Your task to perform on an android device: What's the news in Myanmar? Image 0: 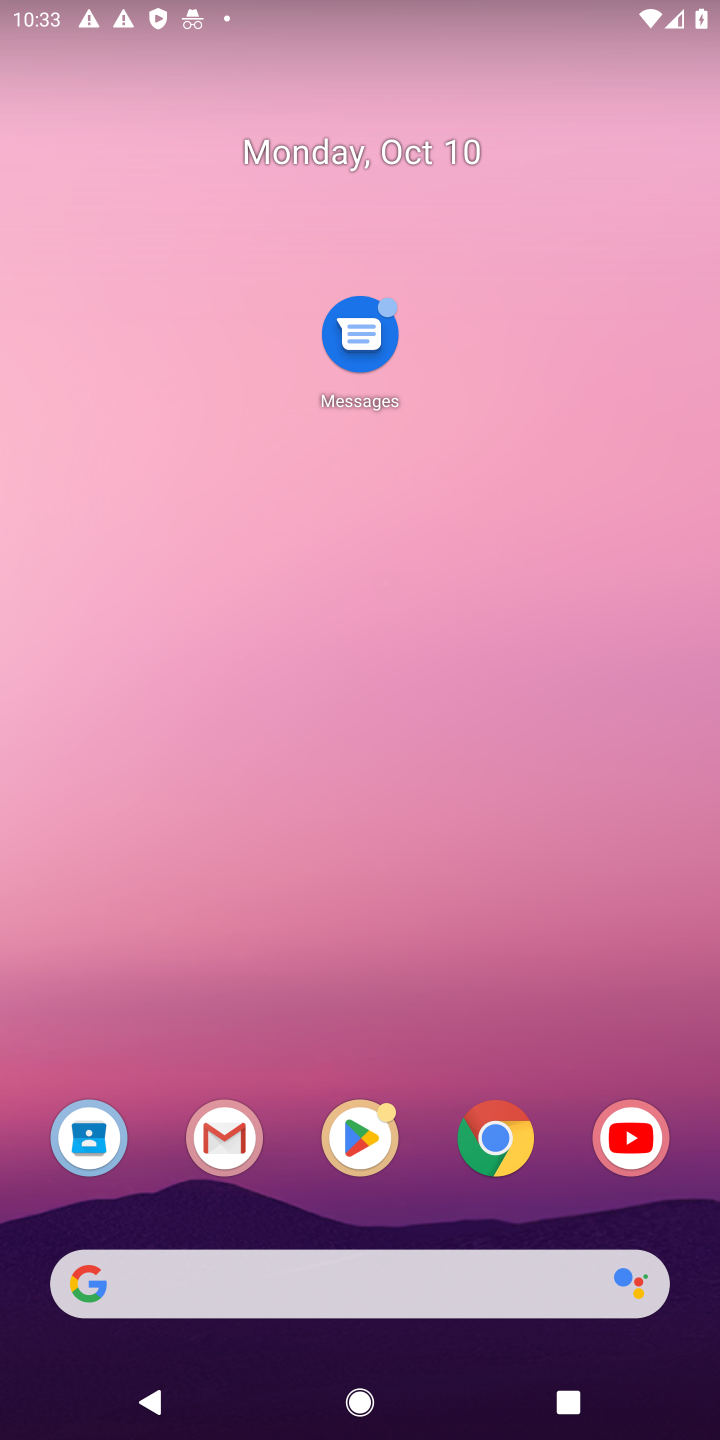
Step 0: click (492, 1159)
Your task to perform on an android device: What's the news in Myanmar? Image 1: 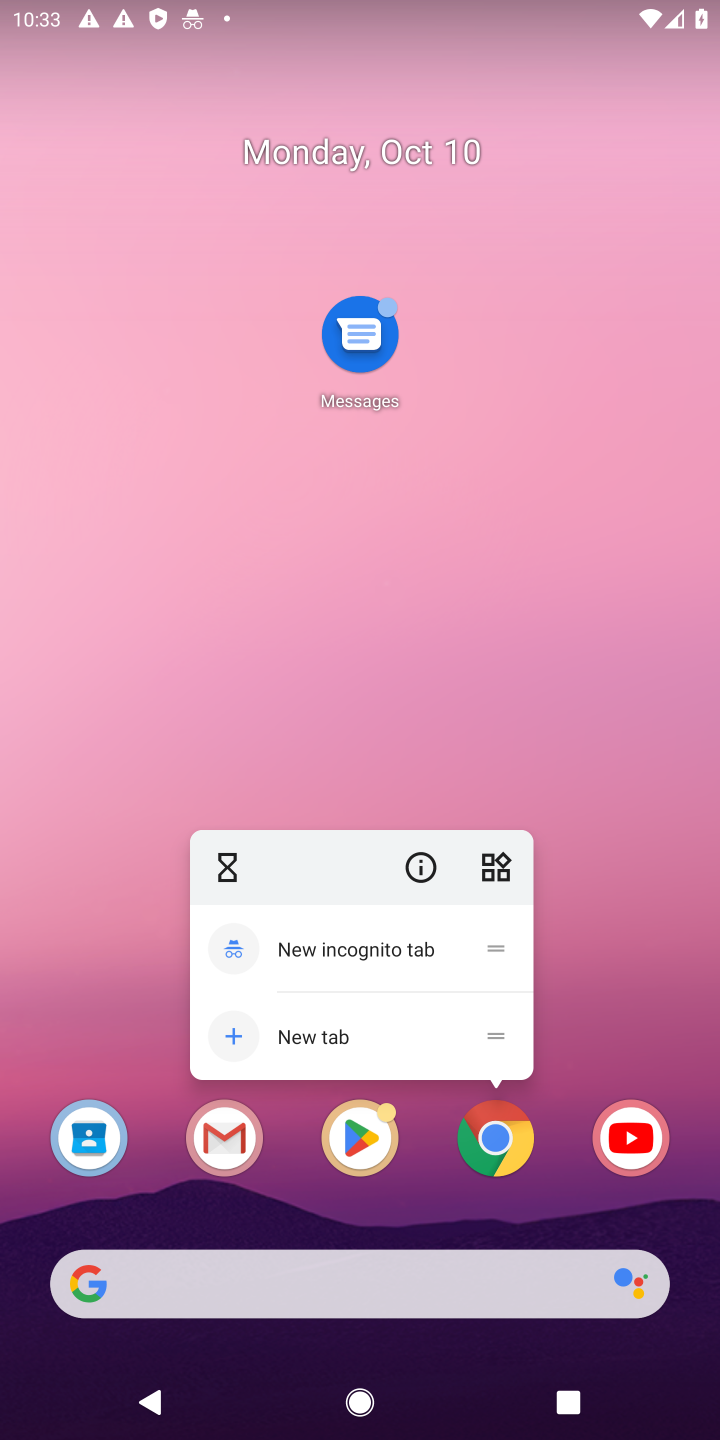
Step 1: click (502, 1142)
Your task to perform on an android device: What's the news in Myanmar? Image 2: 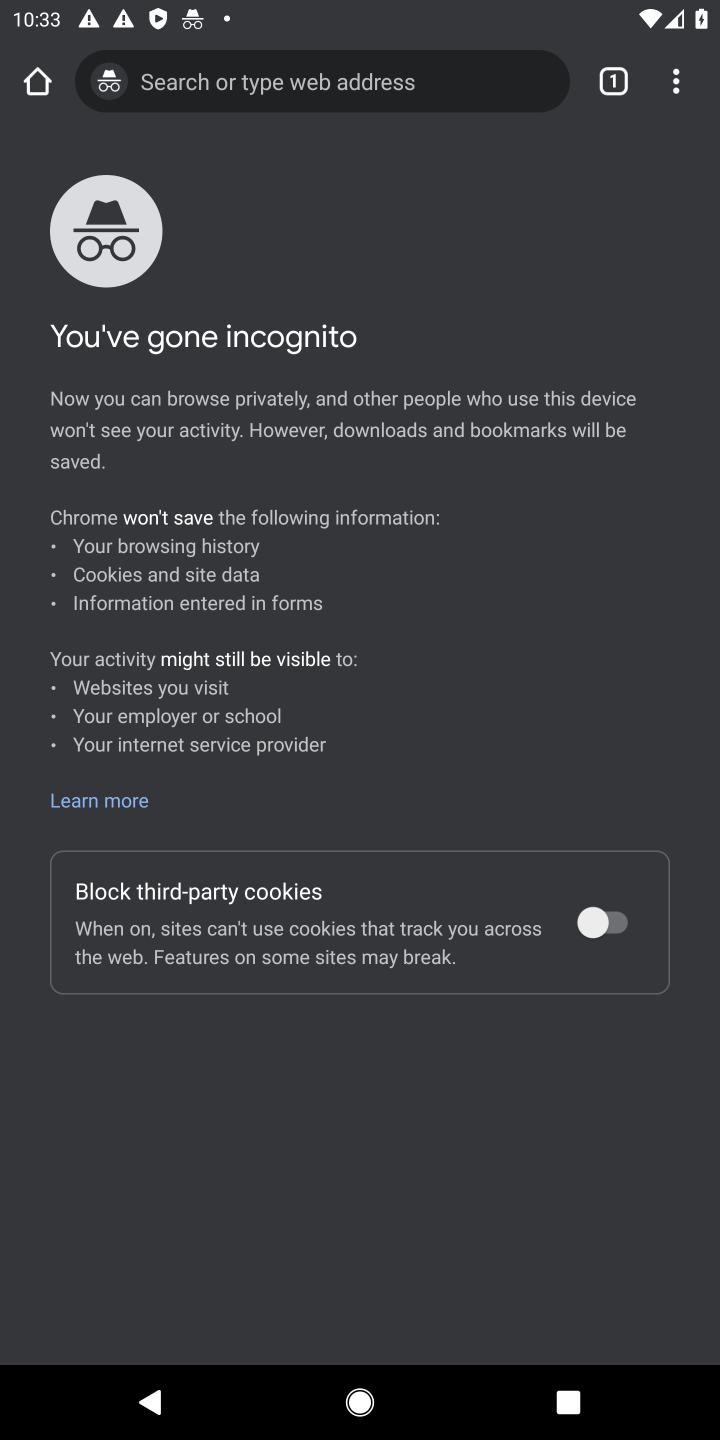
Step 2: click (626, 78)
Your task to perform on an android device: What's the news in Myanmar? Image 3: 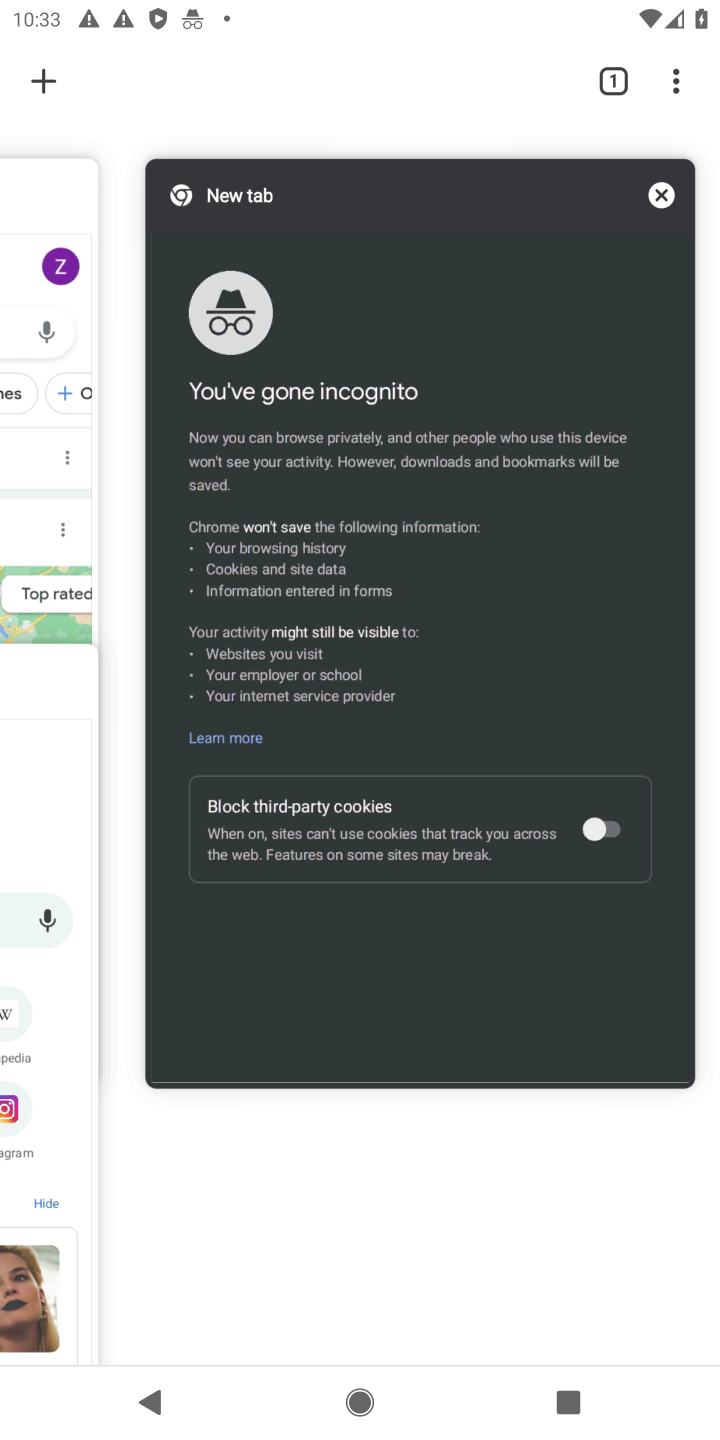
Step 3: click (655, 204)
Your task to perform on an android device: What's the news in Myanmar? Image 4: 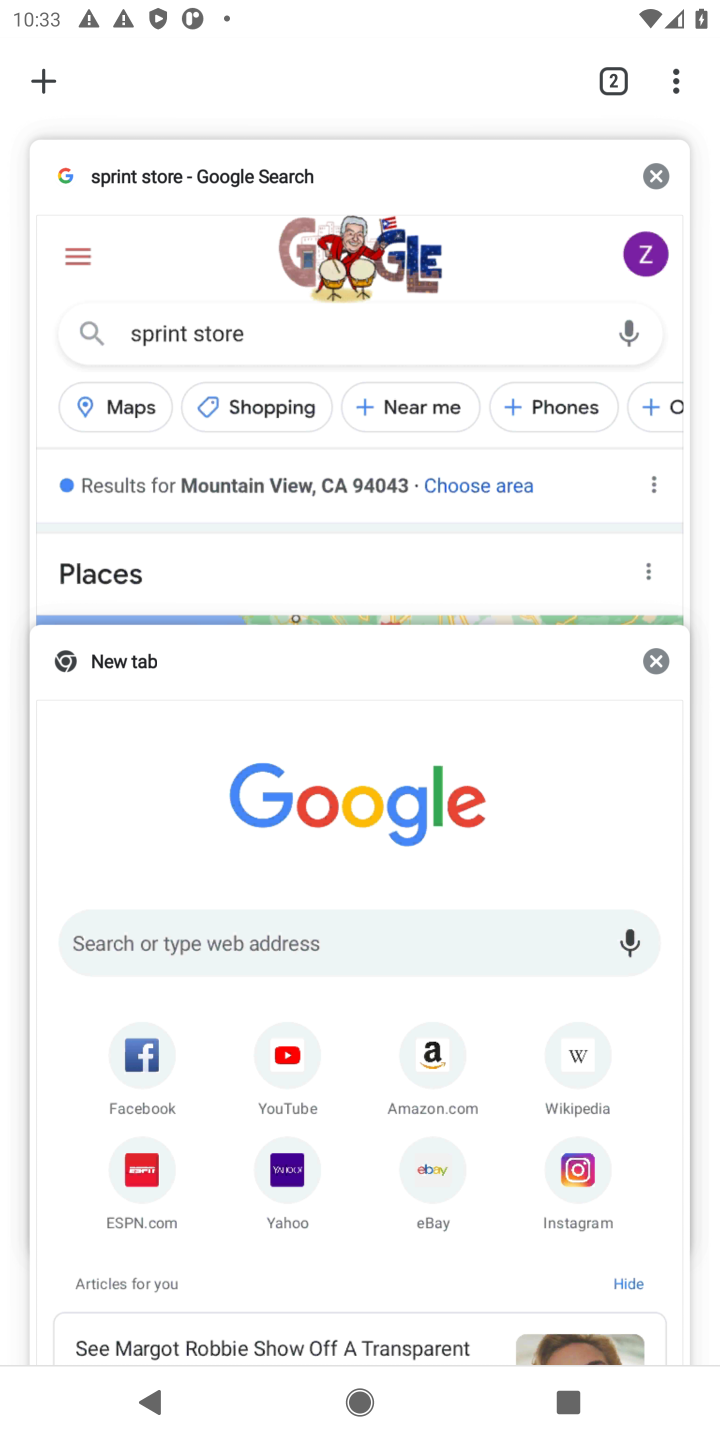
Step 4: click (656, 659)
Your task to perform on an android device: What's the news in Myanmar? Image 5: 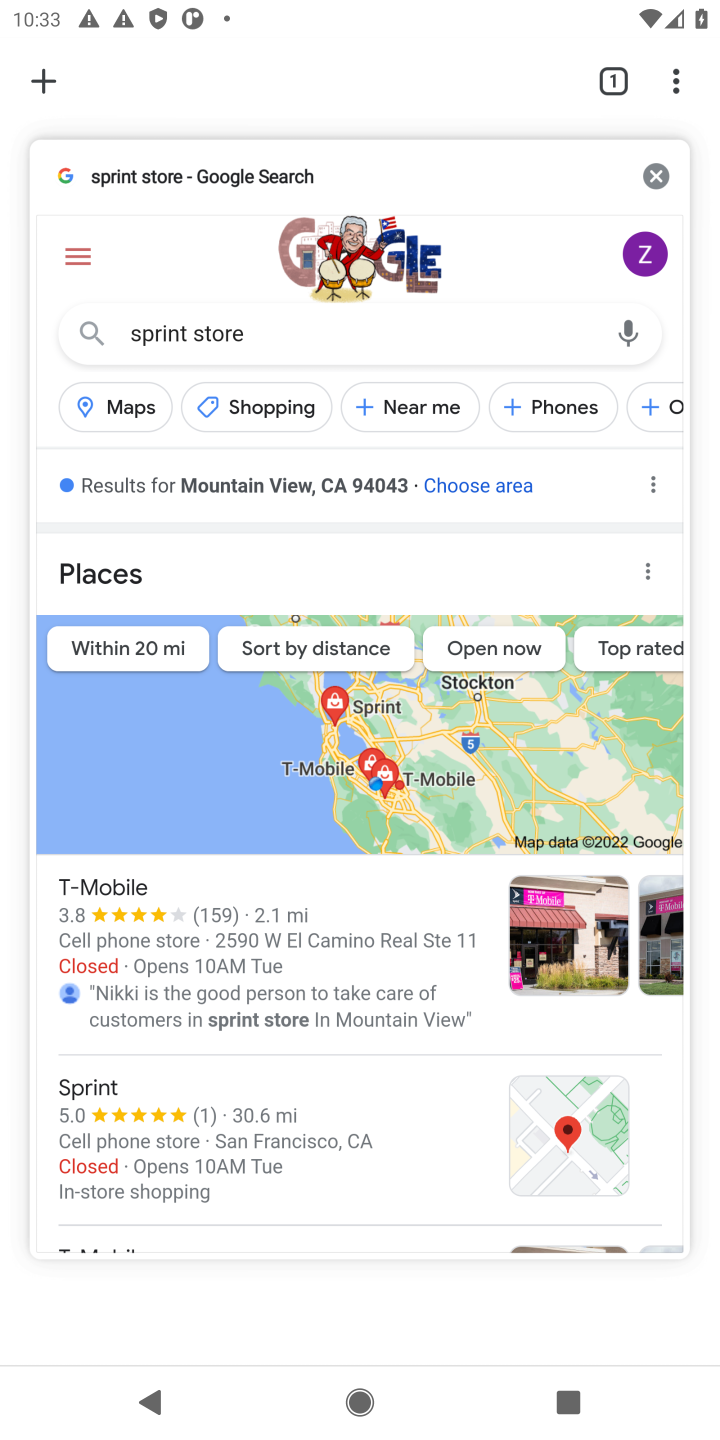
Step 5: click (654, 173)
Your task to perform on an android device: What's the news in Myanmar? Image 6: 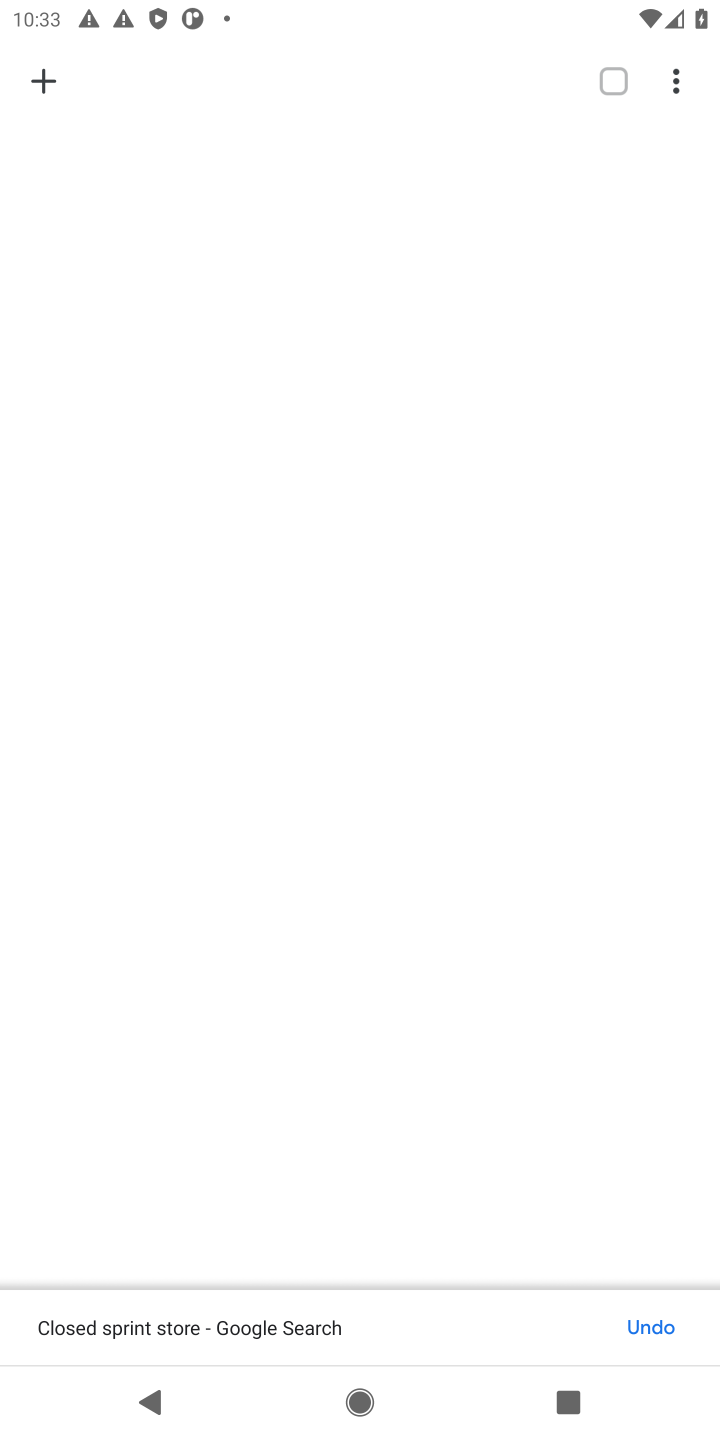
Step 6: click (24, 90)
Your task to perform on an android device: What's the news in Myanmar? Image 7: 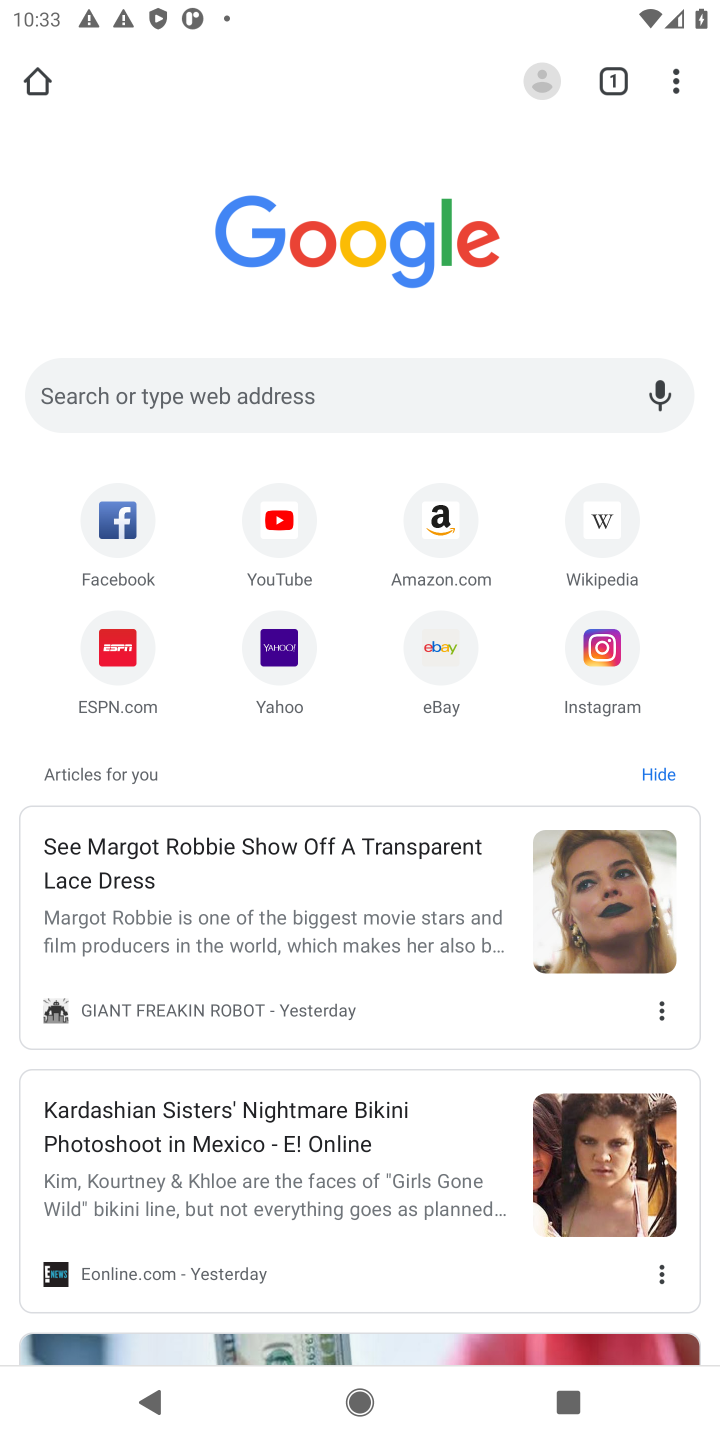
Step 7: click (200, 409)
Your task to perform on an android device: What's the news in Myanmar? Image 8: 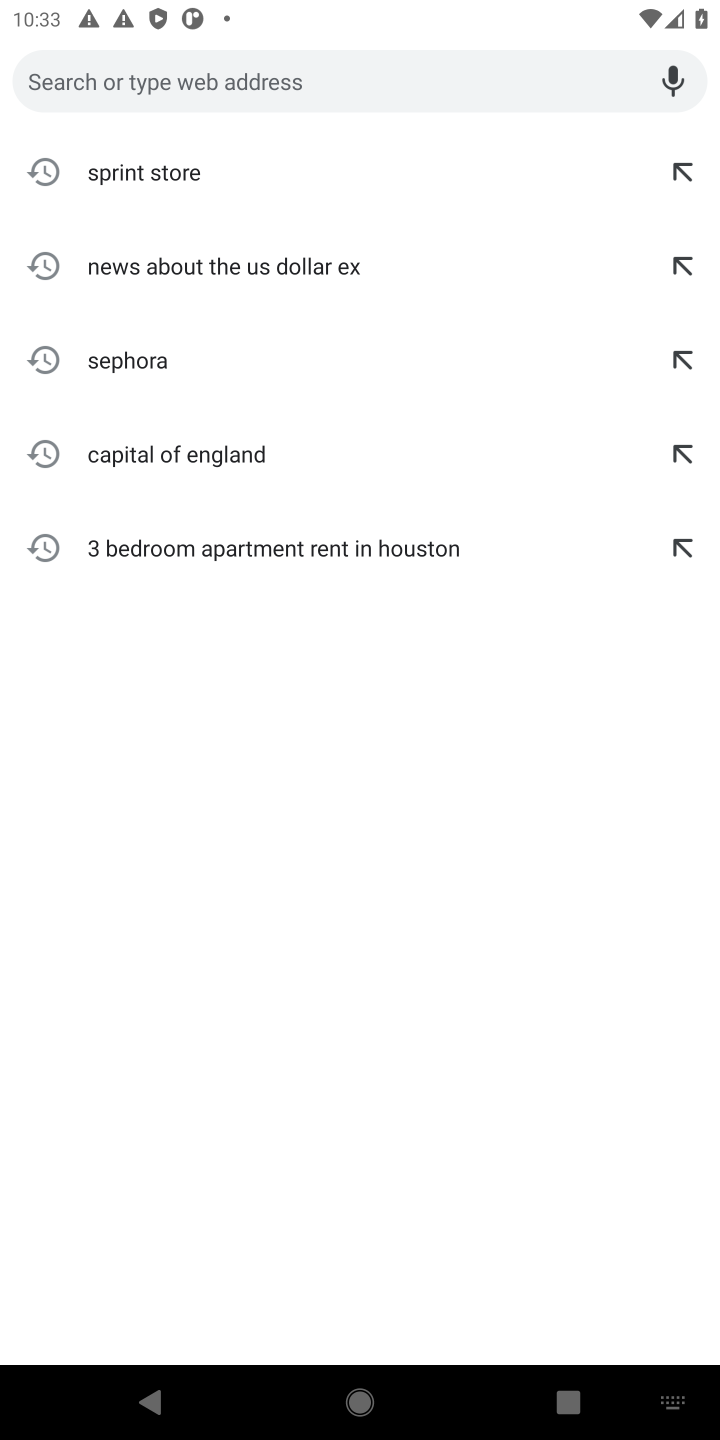
Step 8: type "news in Myanmar"
Your task to perform on an android device: What's the news in Myanmar? Image 9: 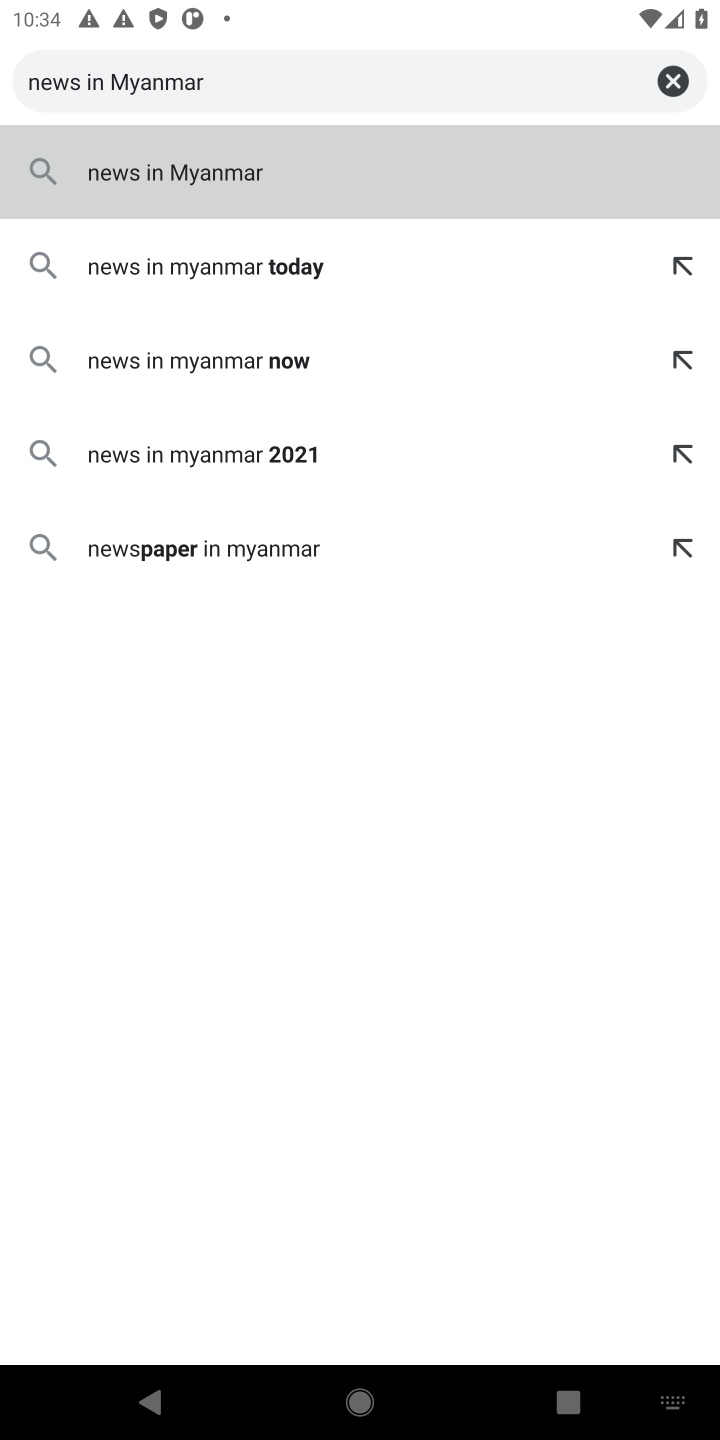
Step 9: press enter
Your task to perform on an android device: What's the news in Myanmar? Image 10: 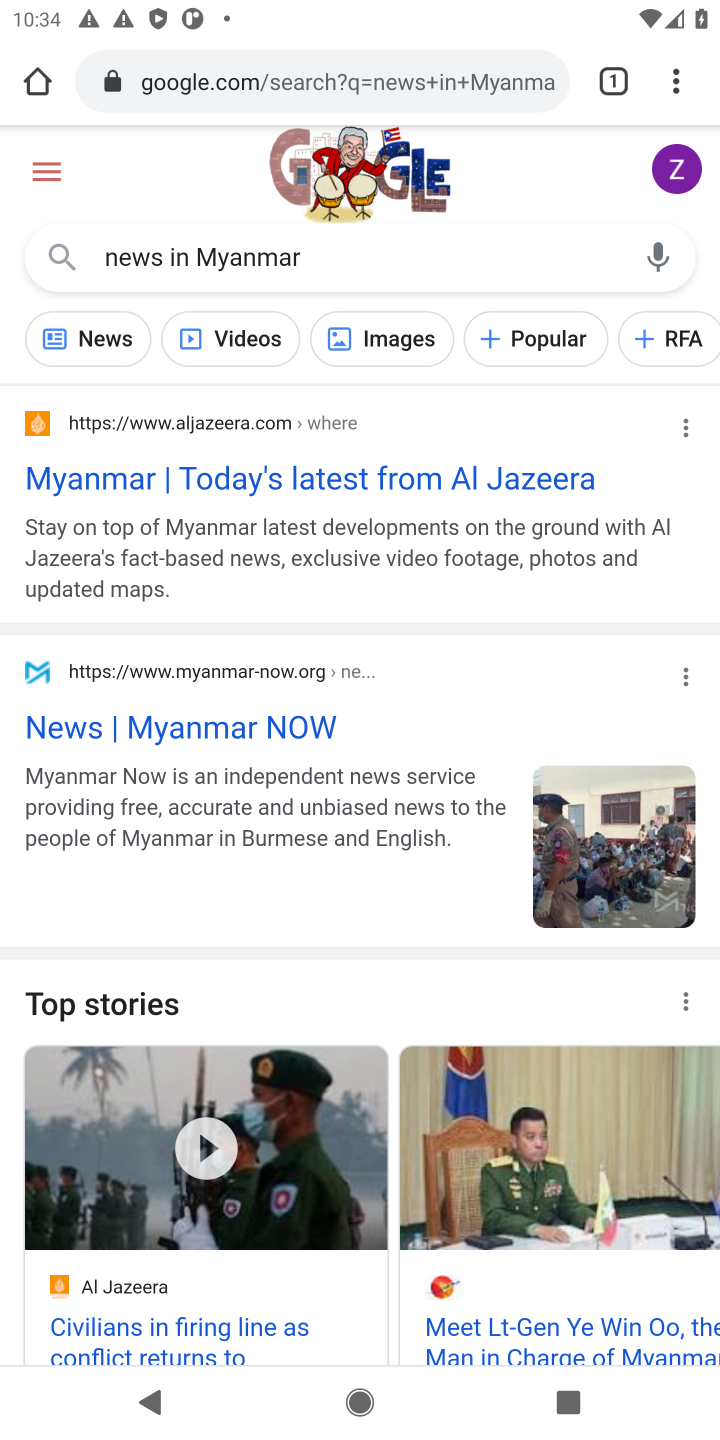
Step 10: click (104, 353)
Your task to perform on an android device: What's the news in Myanmar? Image 11: 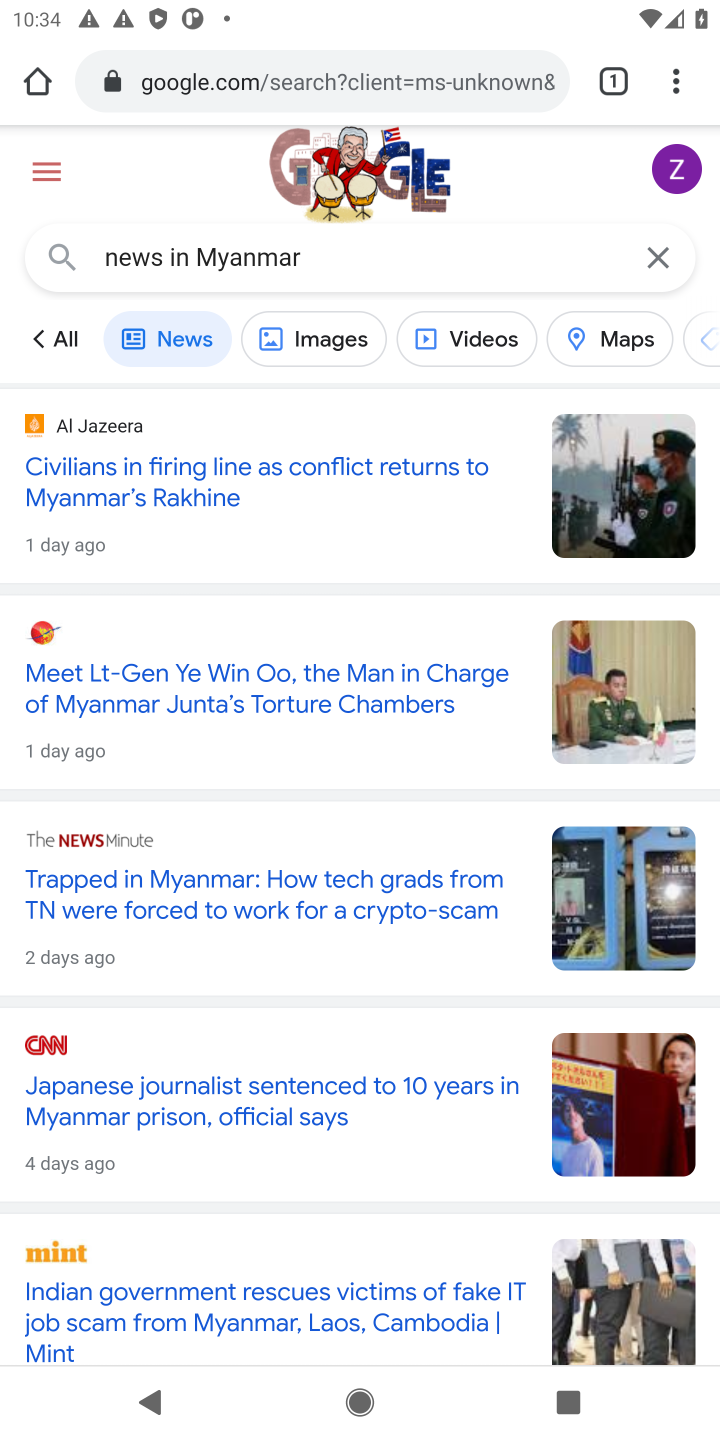
Step 11: task complete